Your task to perform on an android device: Open ESPN.com Image 0: 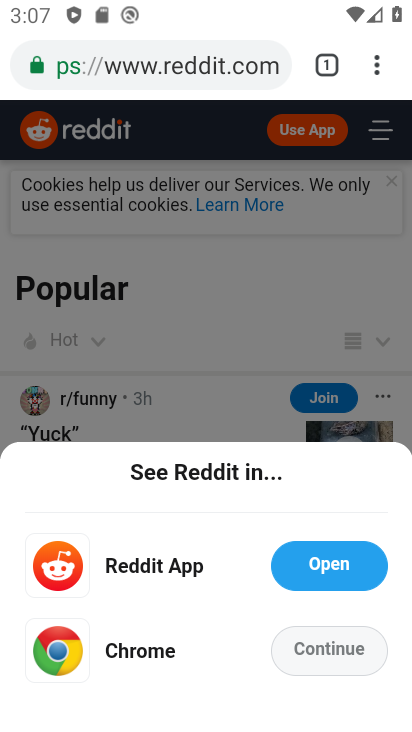
Step 0: click (368, 49)
Your task to perform on an android device: Open ESPN.com Image 1: 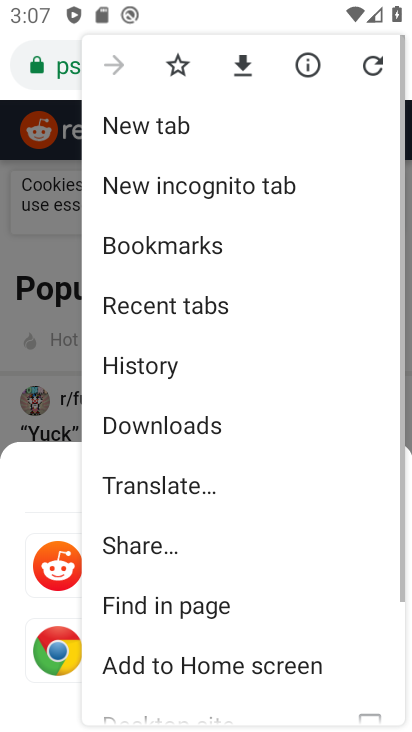
Step 1: click (166, 141)
Your task to perform on an android device: Open ESPN.com Image 2: 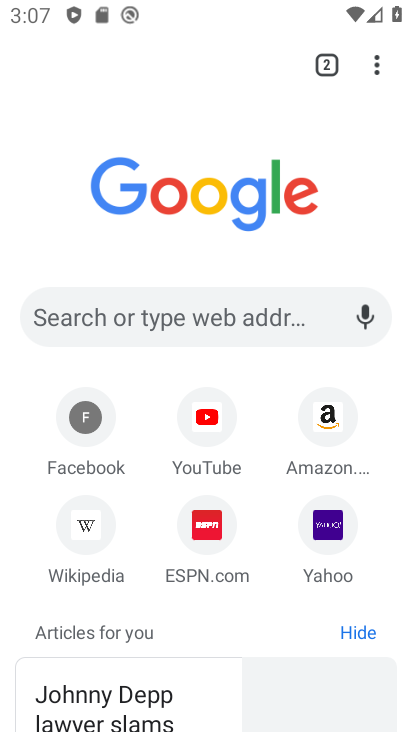
Step 2: click (203, 542)
Your task to perform on an android device: Open ESPN.com Image 3: 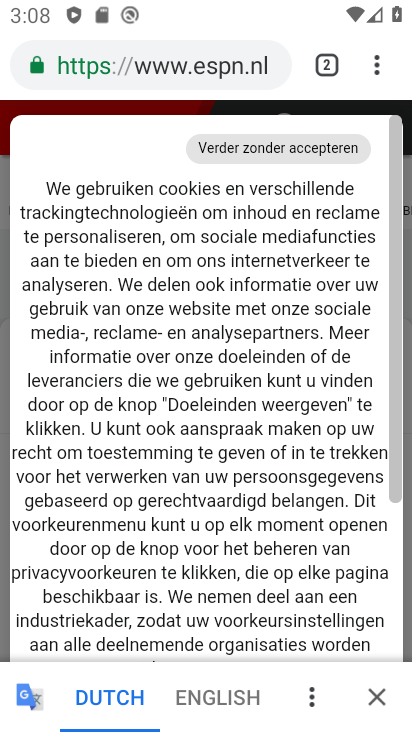
Step 3: task complete